Your task to perform on an android device: Play the last video I watched on Youtube Image 0: 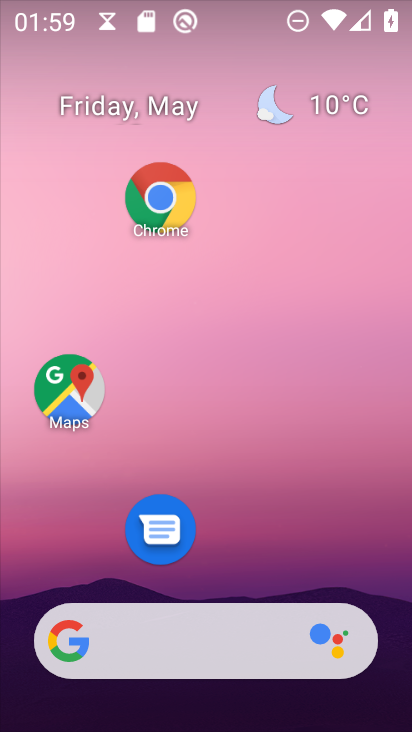
Step 0: drag from (279, 484) to (254, 262)
Your task to perform on an android device: Play the last video I watched on Youtube Image 1: 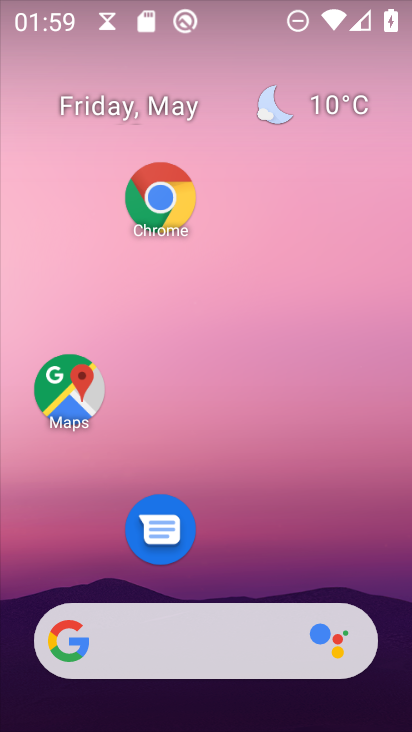
Step 1: click (238, 245)
Your task to perform on an android device: Play the last video I watched on Youtube Image 2: 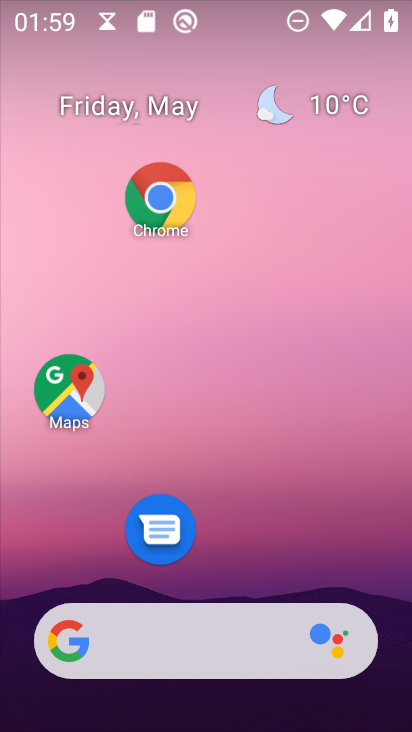
Step 2: drag from (275, 619) to (219, 175)
Your task to perform on an android device: Play the last video I watched on Youtube Image 3: 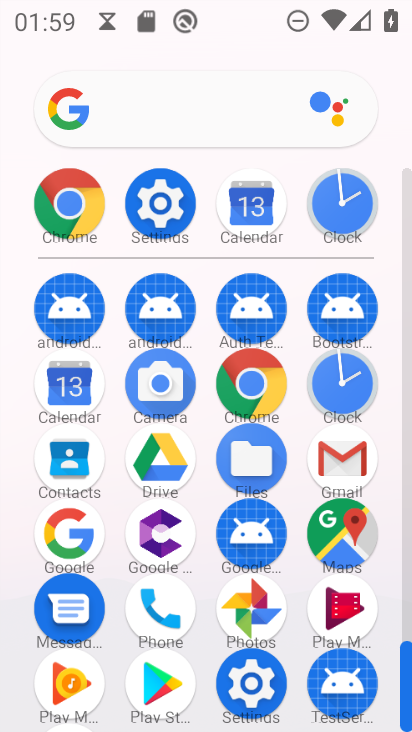
Step 3: drag from (305, 589) to (273, 206)
Your task to perform on an android device: Play the last video I watched on Youtube Image 4: 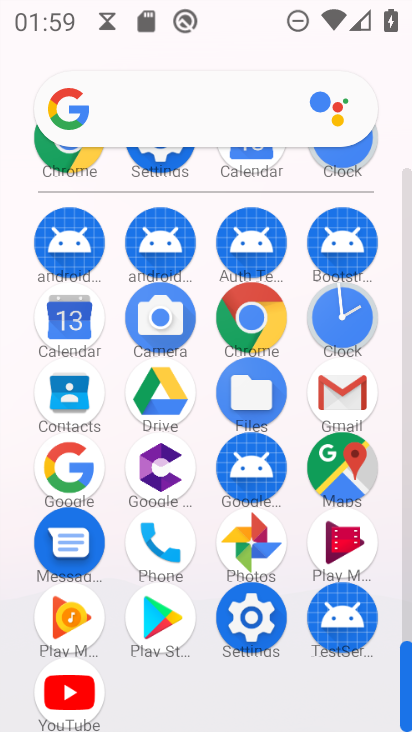
Step 4: click (73, 691)
Your task to perform on an android device: Play the last video I watched on Youtube Image 5: 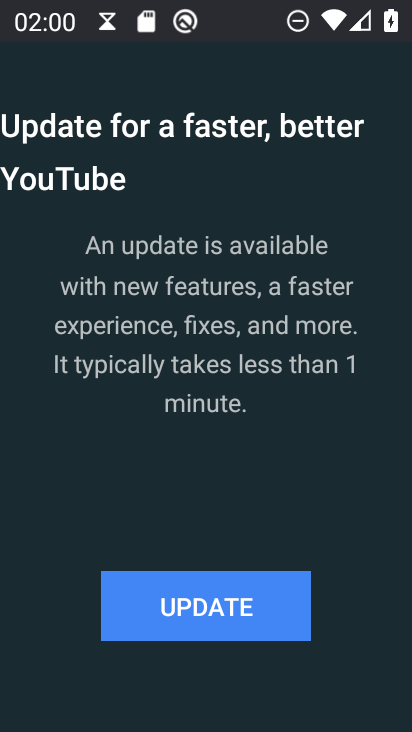
Step 5: task complete